Your task to perform on an android device: Open eBay Image 0: 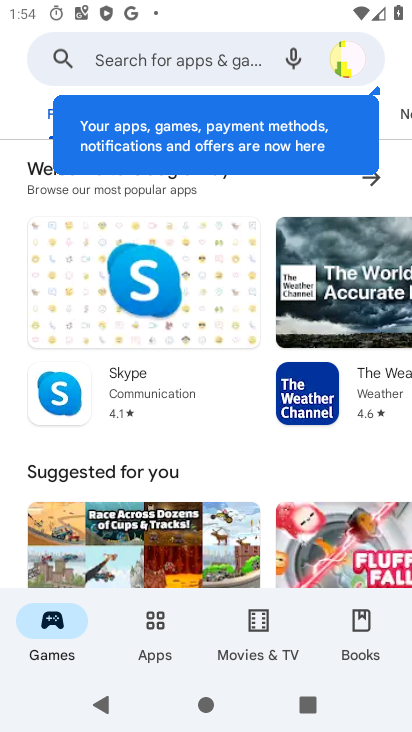
Step 0: press home button
Your task to perform on an android device: Open eBay Image 1: 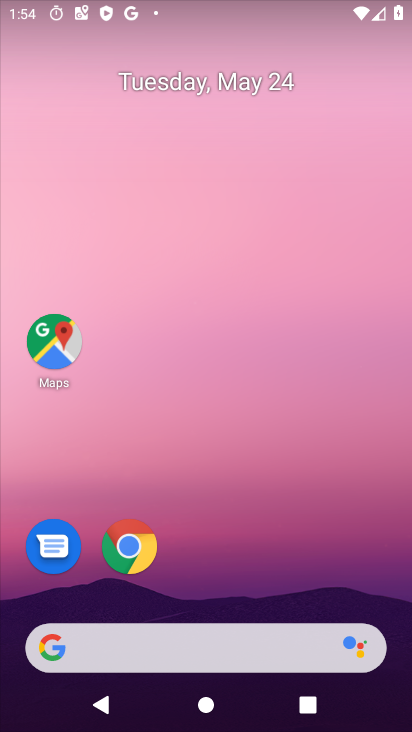
Step 1: click (125, 545)
Your task to perform on an android device: Open eBay Image 2: 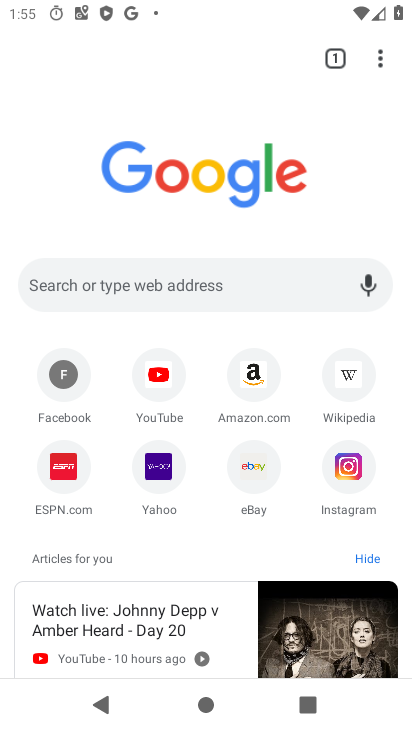
Step 2: click (238, 456)
Your task to perform on an android device: Open eBay Image 3: 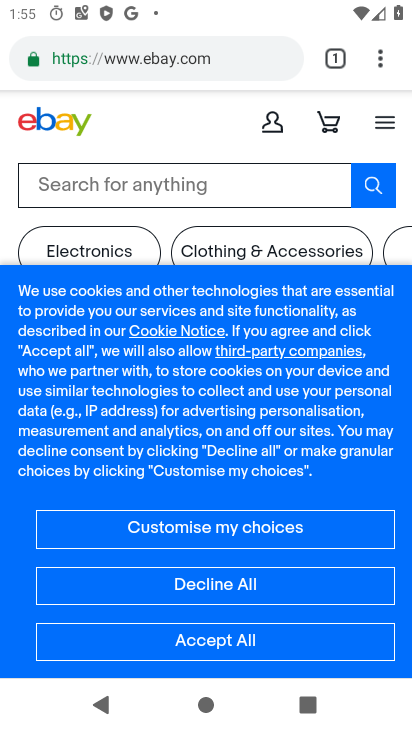
Step 3: task complete